Your task to perform on an android device: turn off location Image 0: 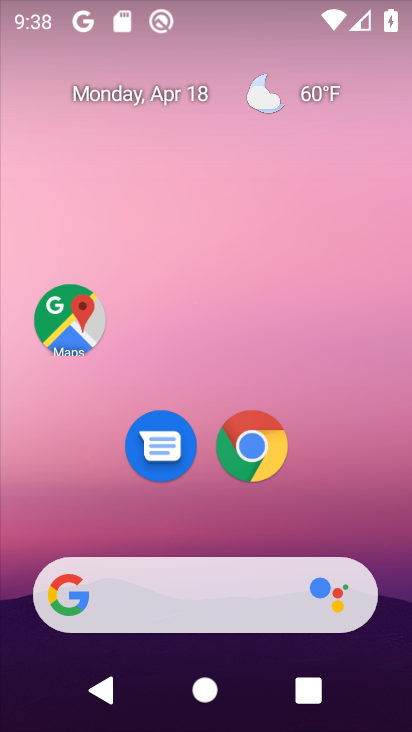
Step 0: drag from (389, 397) to (388, 103)
Your task to perform on an android device: turn off location Image 1: 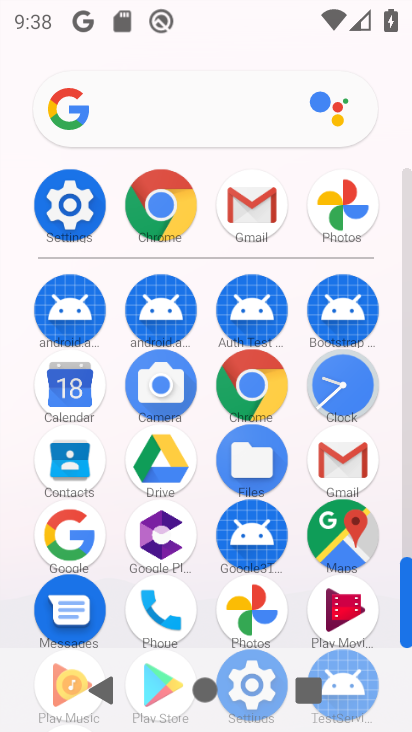
Step 1: click (75, 201)
Your task to perform on an android device: turn off location Image 2: 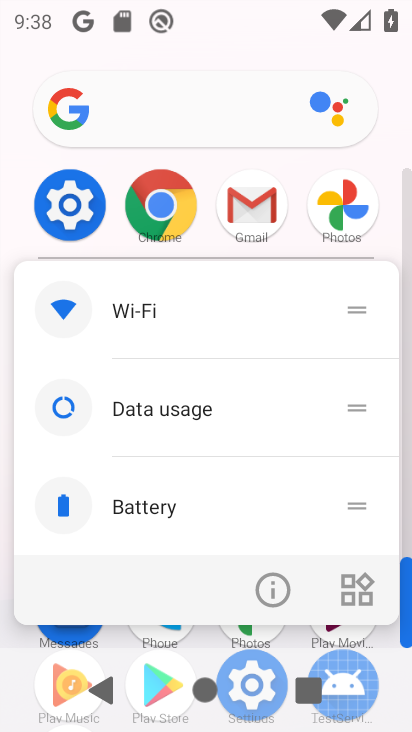
Step 2: click (76, 202)
Your task to perform on an android device: turn off location Image 3: 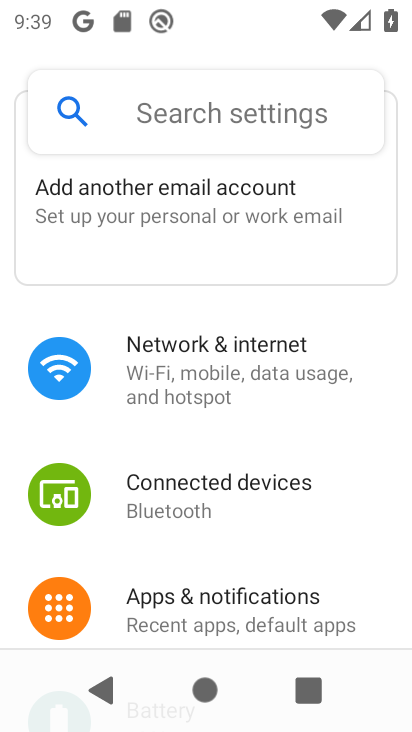
Step 3: drag from (382, 558) to (384, 379)
Your task to perform on an android device: turn off location Image 4: 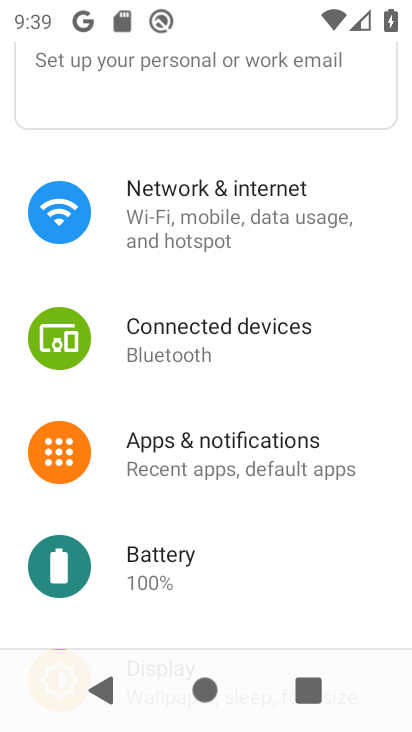
Step 4: drag from (383, 586) to (372, 393)
Your task to perform on an android device: turn off location Image 5: 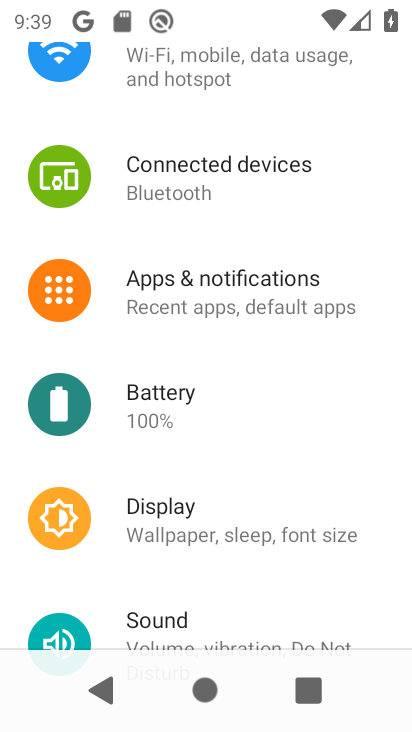
Step 5: drag from (382, 589) to (379, 404)
Your task to perform on an android device: turn off location Image 6: 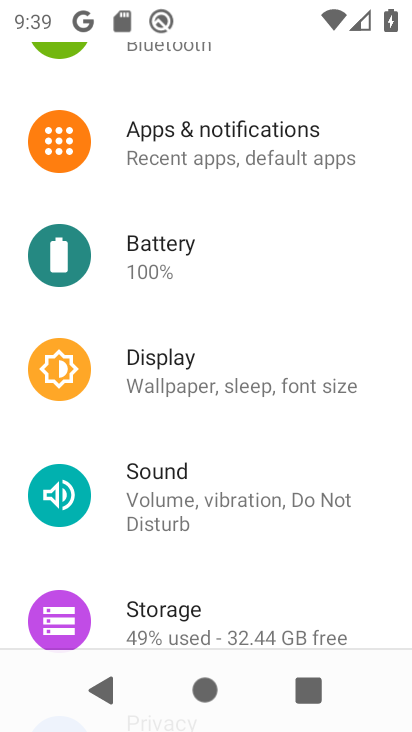
Step 6: drag from (379, 579) to (375, 387)
Your task to perform on an android device: turn off location Image 7: 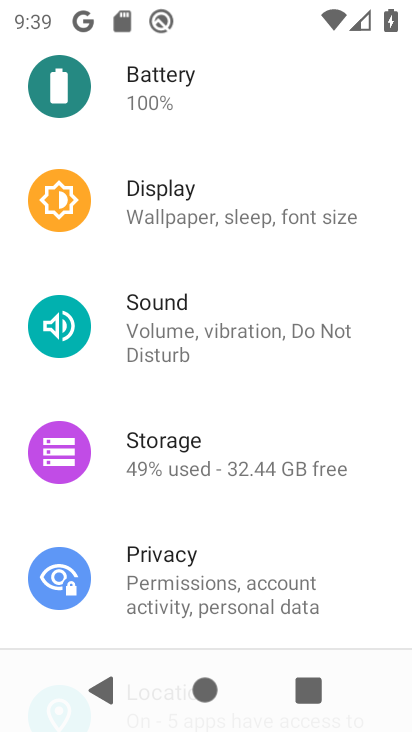
Step 7: drag from (373, 583) to (378, 404)
Your task to perform on an android device: turn off location Image 8: 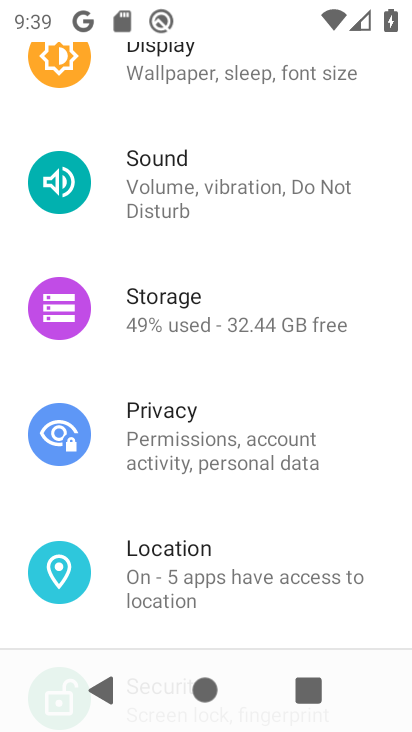
Step 8: drag from (382, 609) to (390, 394)
Your task to perform on an android device: turn off location Image 9: 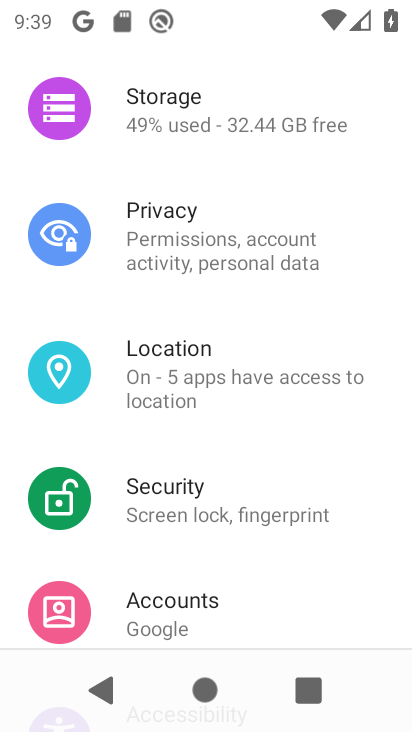
Step 9: click (229, 380)
Your task to perform on an android device: turn off location Image 10: 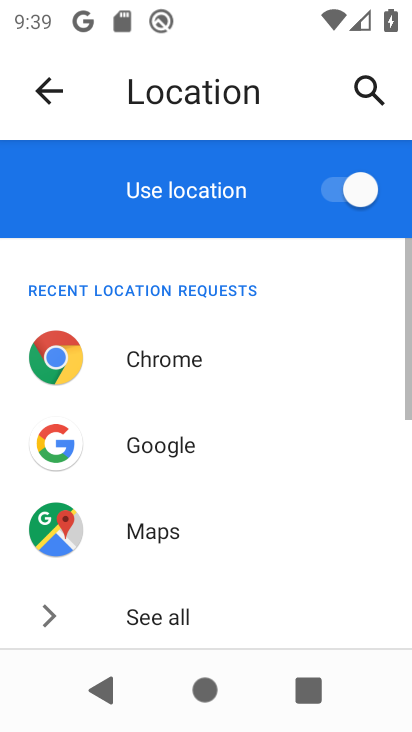
Step 10: click (331, 193)
Your task to perform on an android device: turn off location Image 11: 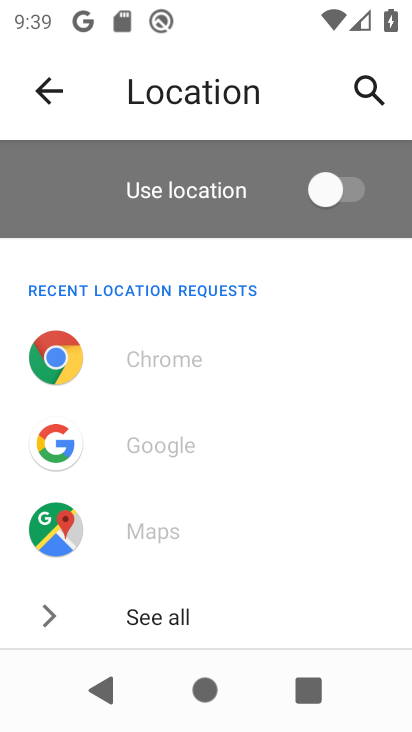
Step 11: task complete